Your task to perform on an android device: change alarm snooze length Image 0: 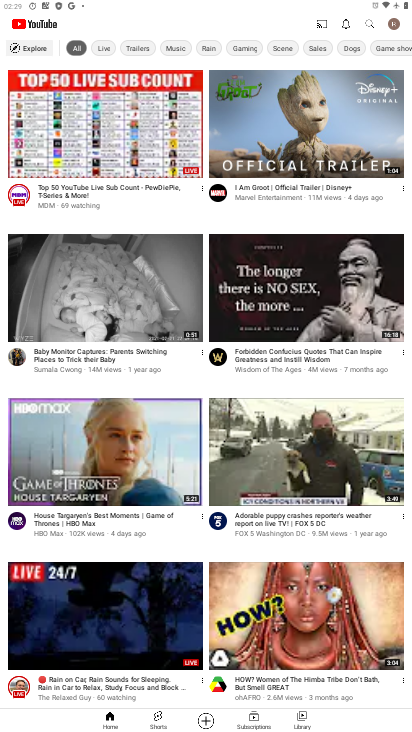
Step 0: press home button
Your task to perform on an android device: change alarm snooze length Image 1: 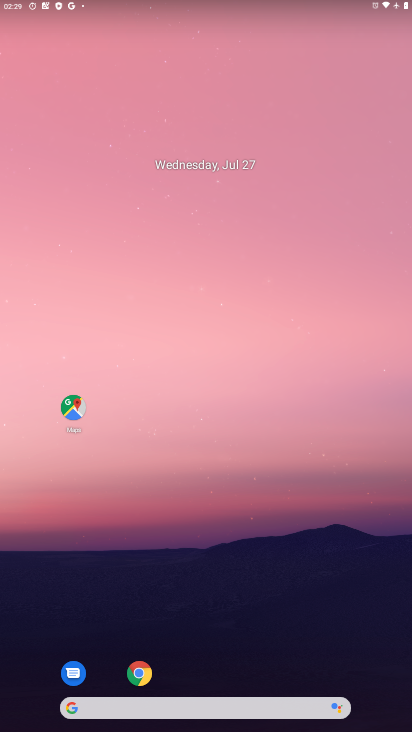
Step 1: drag from (226, 673) to (252, 7)
Your task to perform on an android device: change alarm snooze length Image 2: 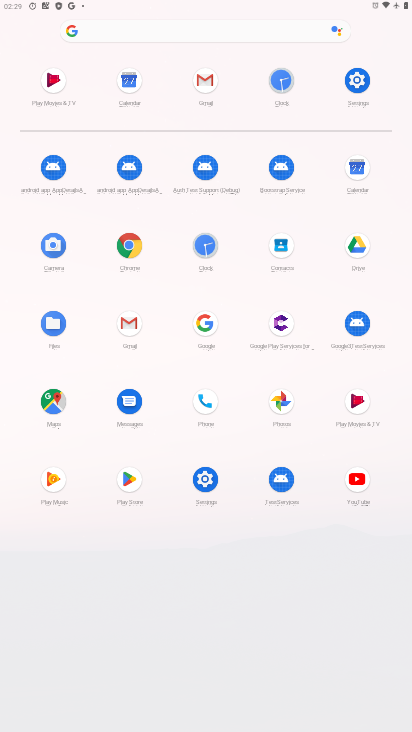
Step 2: click (287, 97)
Your task to perform on an android device: change alarm snooze length Image 3: 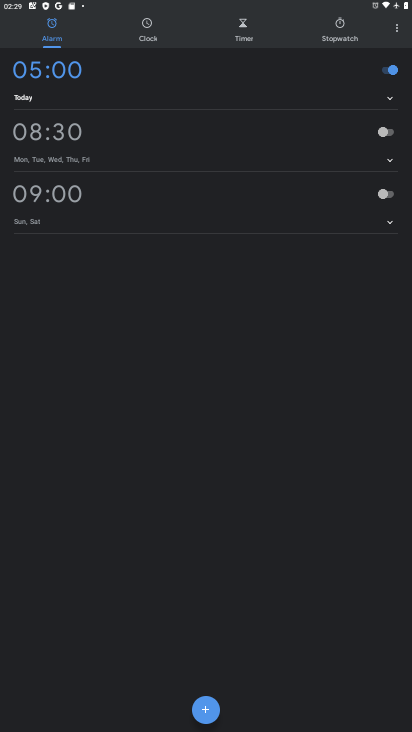
Step 3: click (400, 30)
Your task to perform on an android device: change alarm snooze length Image 4: 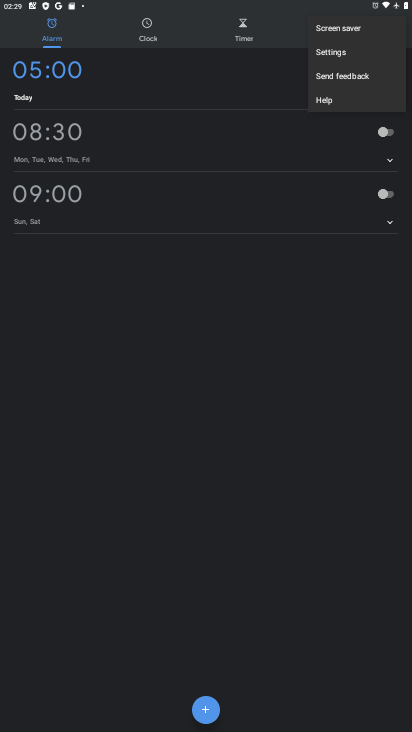
Step 4: click (329, 58)
Your task to perform on an android device: change alarm snooze length Image 5: 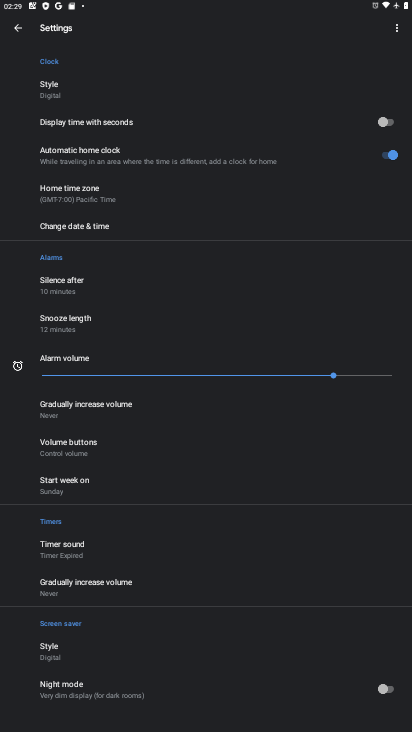
Step 5: click (64, 329)
Your task to perform on an android device: change alarm snooze length Image 6: 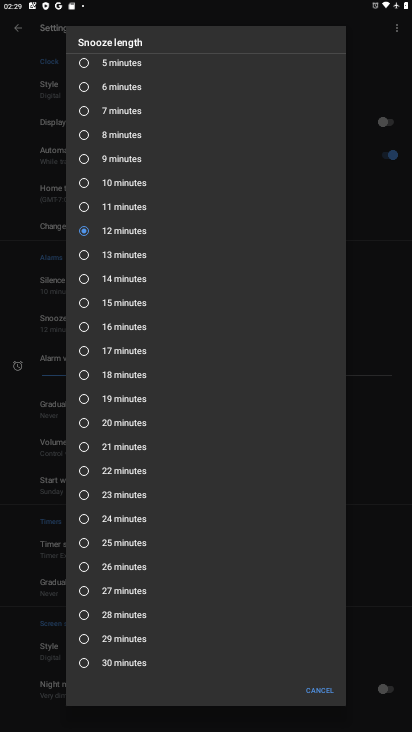
Step 6: click (88, 180)
Your task to perform on an android device: change alarm snooze length Image 7: 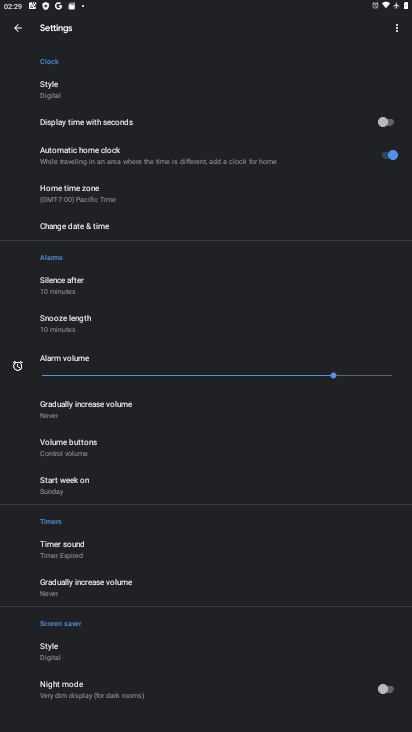
Step 7: task complete